Your task to perform on an android device: Set the phone to "Do not disturb". Image 0: 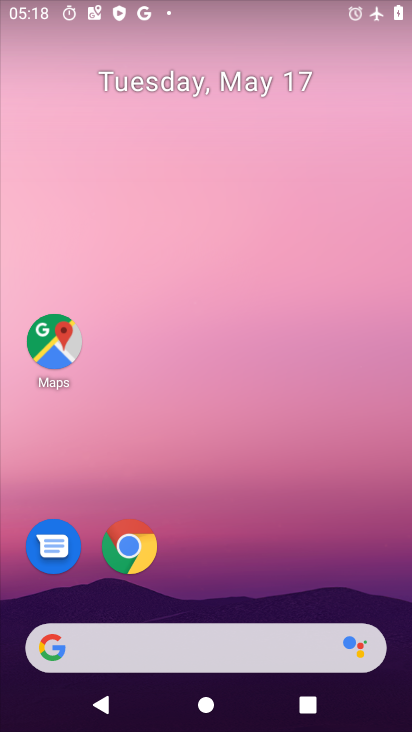
Step 0: drag from (370, 308) to (368, 272)
Your task to perform on an android device: Set the phone to "Do not disturb". Image 1: 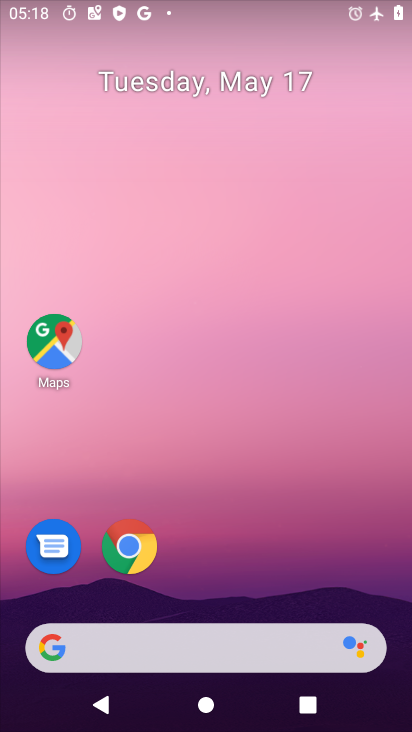
Step 1: drag from (389, 688) to (361, 334)
Your task to perform on an android device: Set the phone to "Do not disturb". Image 2: 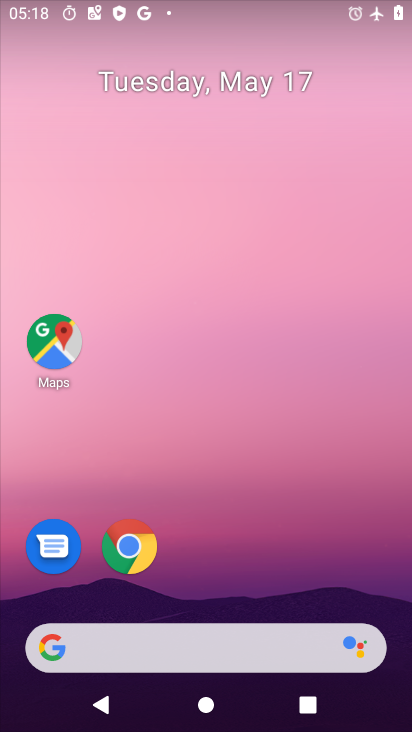
Step 2: drag from (395, 691) to (347, 364)
Your task to perform on an android device: Set the phone to "Do not disturb". Image 3: 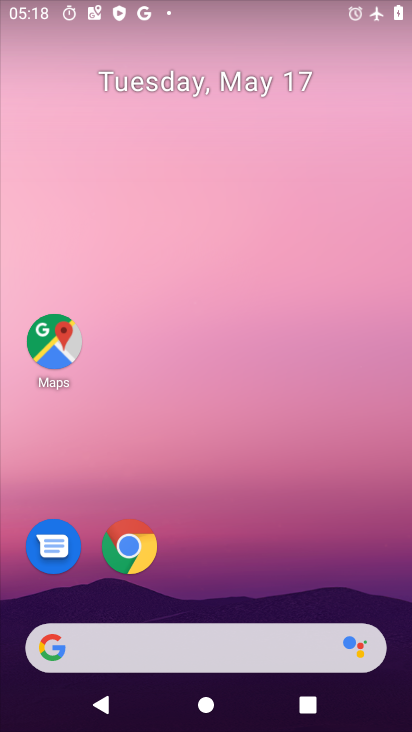
Step 3: drag from (393, 683) to (350, 304)
Your task to perform on an android device: Set the phone to "Do not disturb". Image 4: 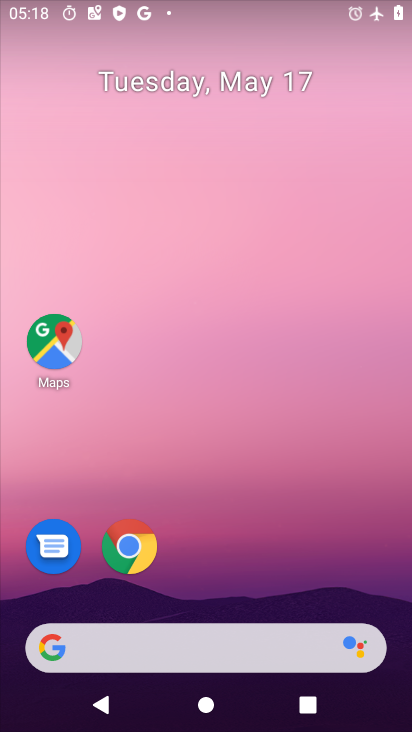
Step 4: drag from (393, 677) to (411, 215)
Your task to perform on an android device: Set the phone to "Do not disturb". Image 5: 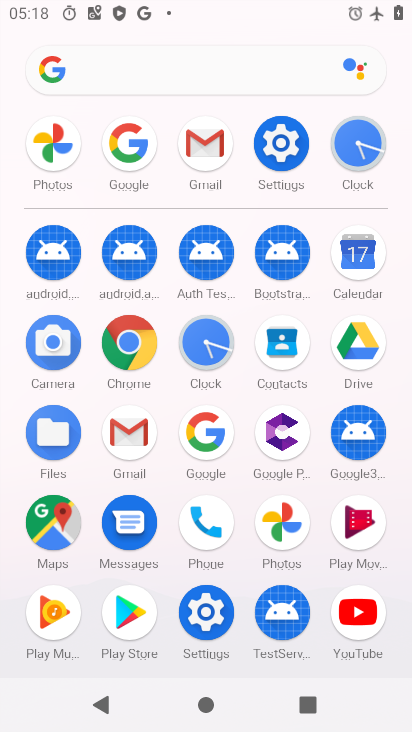
Step 5: click (280, 145)
Your task to perform on an android device: Set the phone to "Do not disturb". Image 6: 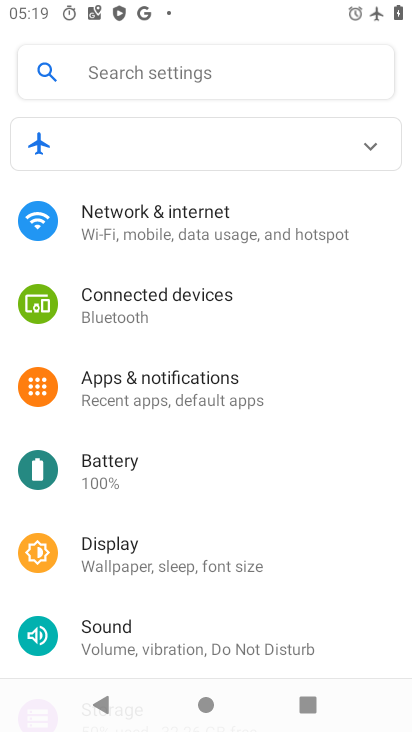
Step 6: click (148, 639)
Your task to perform on an android device: Set the phone to "Do not disturb". Image 7: 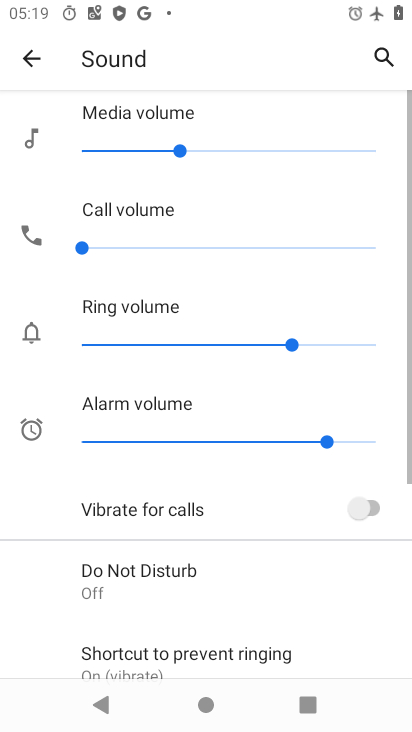
Step 7: click (97, 563)
Your task to perform on an android device: Set the phone to "Do not disturb". Image 8: 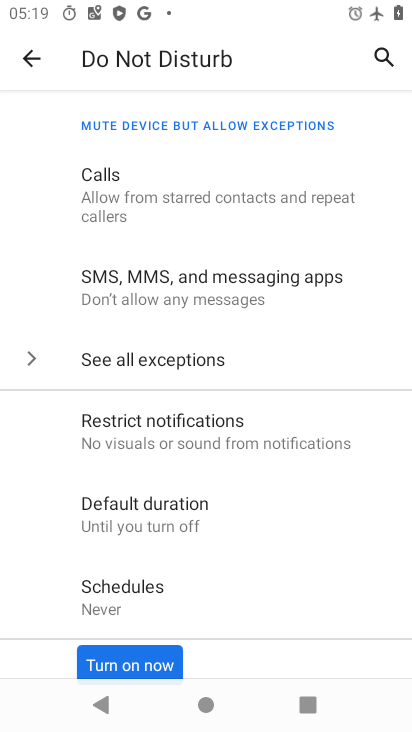
Step 8: click (145, 666)
Your task to perform on an android device: Set the phone to "Do not disturb". Image 9: 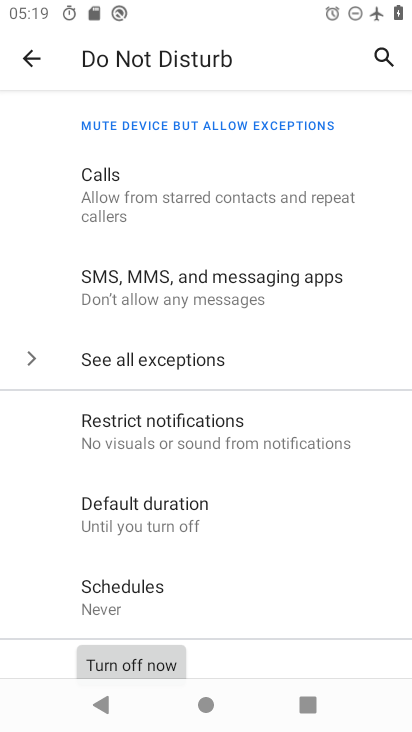
Step 9: task complete